Your task to perform on an android device: turn off location Image 0: 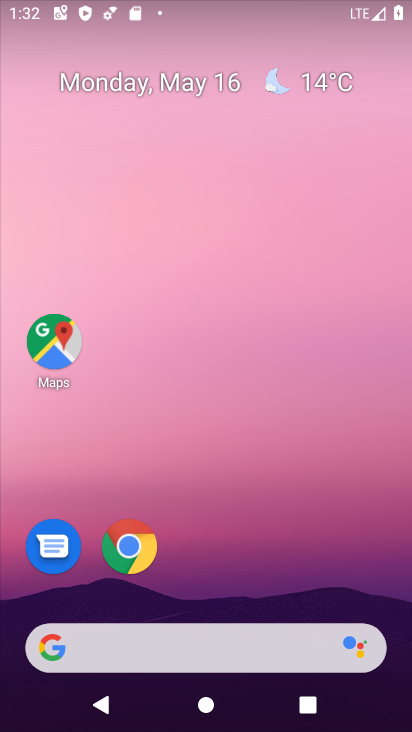
Step 0: press home button
Your task to perform on an android device: turn off location Image 1: 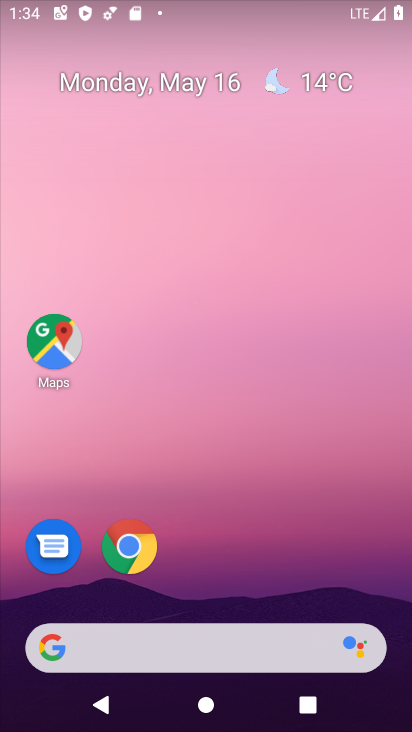
Step 1: drag from (293, 656) to (206, 211)
Your task to perform on an android device: turn off location Image 2: 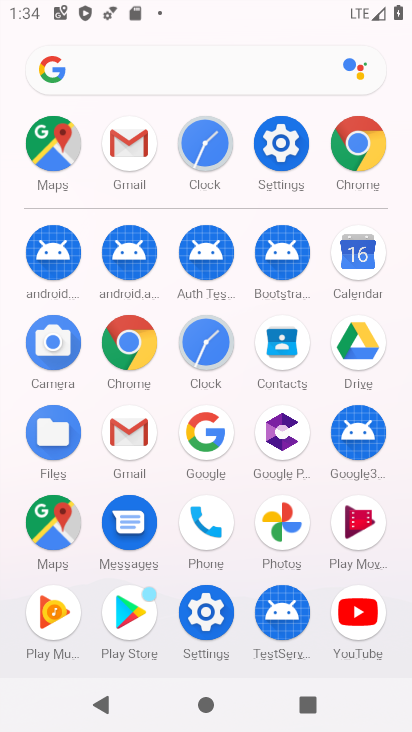
Step 2: click (283, 153)
Your task to perform on an android device: turn off location Image 3: 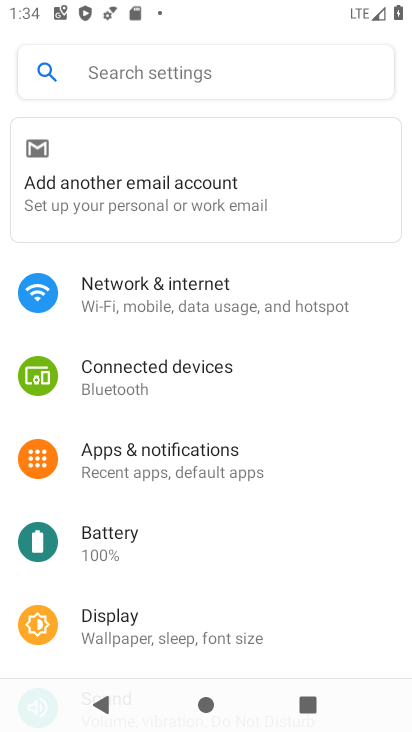
Step 3: click (117, 78)
Your task to perform on an android device: turn off location Image 4: 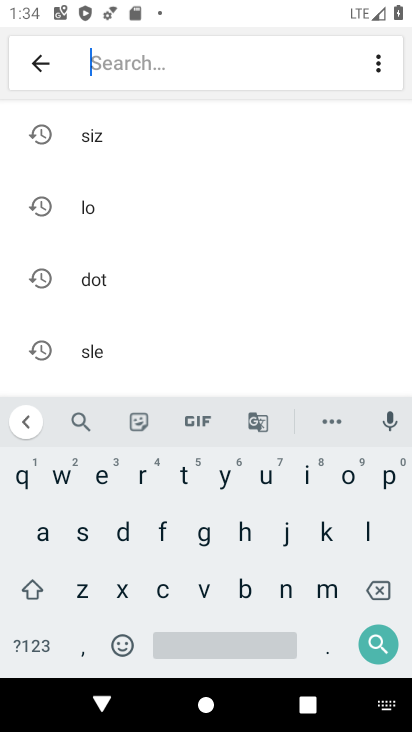
Step 4: click (149, 216)
Your task to perform on an android device: turn off location Image 5: 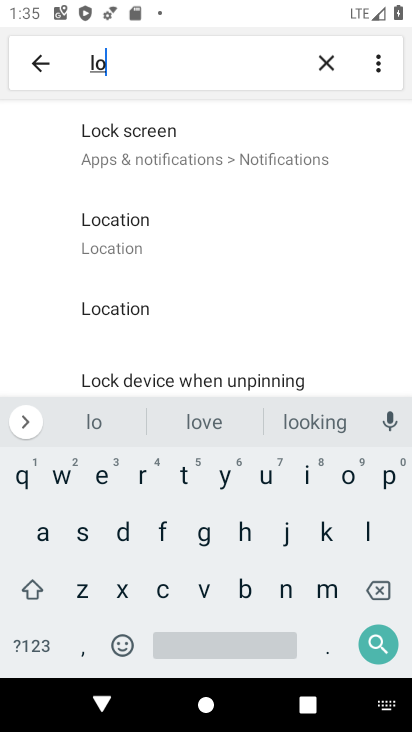
Step 5: click (144, 239)
Your task to perform on an android device: turn off location Image 6: 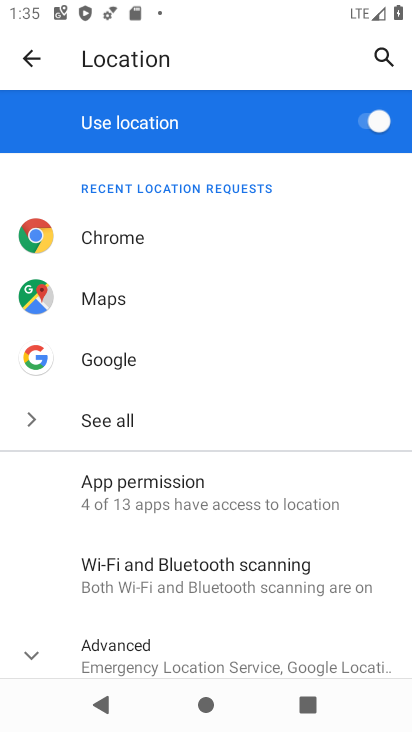
Step 6: click (348, 124)
Your task to perform on an android device: turn off location Image 7: 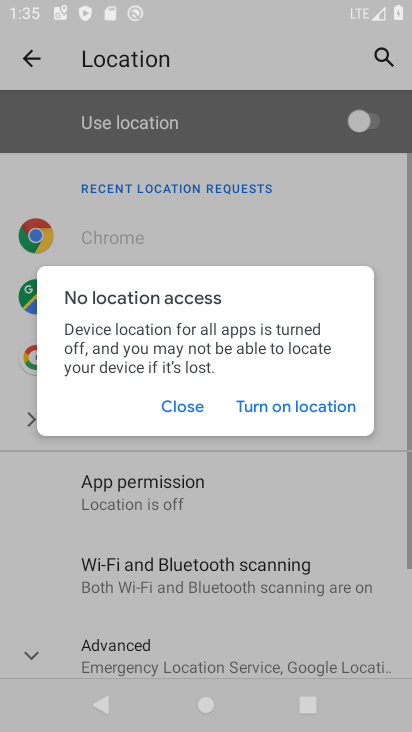
Step 7: task complete